Your task to perform on an android device: Clear the cart on costco. Search for razer thresher on costco, select the first entry, add it to the cart, then select checkout. Image 0: 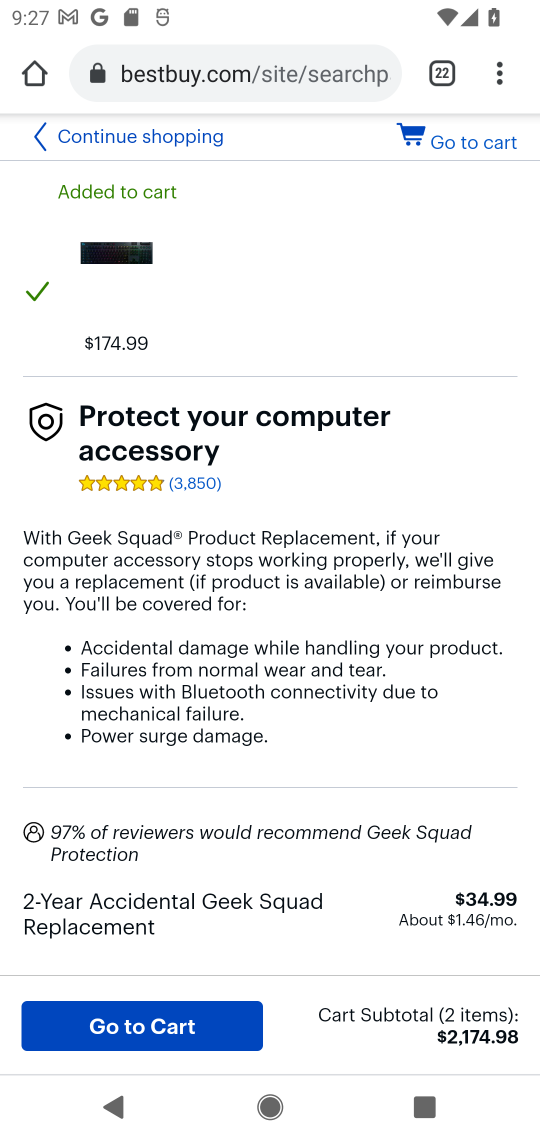
Step 0: press home button
Your task to perform on an android device: Clear the cart on costco. Search for razer thresher on costco, select the first entry, add it to the cart, then select checkout. Image 1: 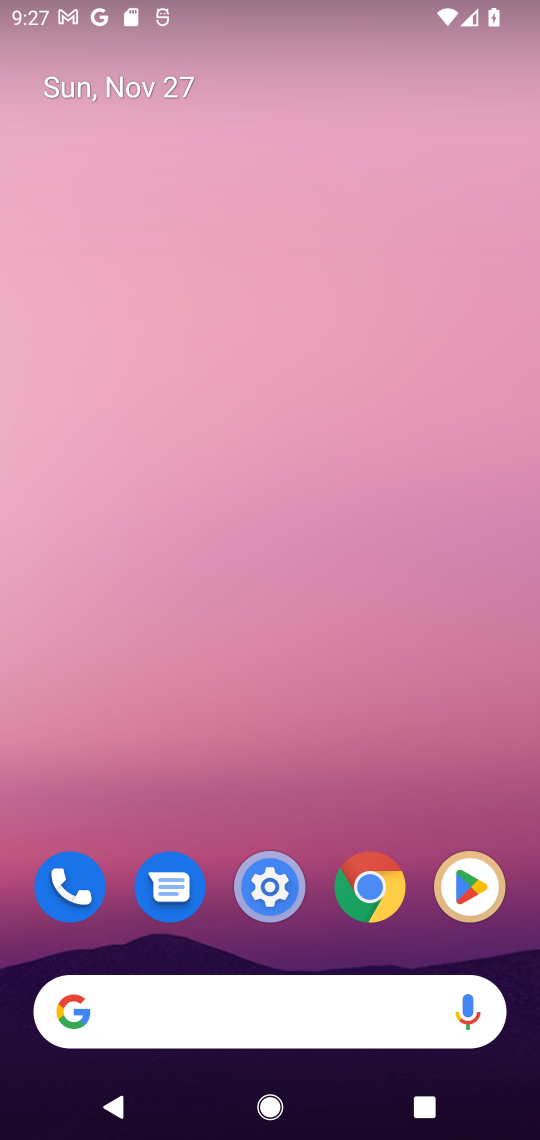
Step 1: click (235, 1042)
Your task to perform on an android device: Clear the cart on costco. Search for razer thresher on costco, select the first entry, add it to the cart, then select checkout. Image 2: 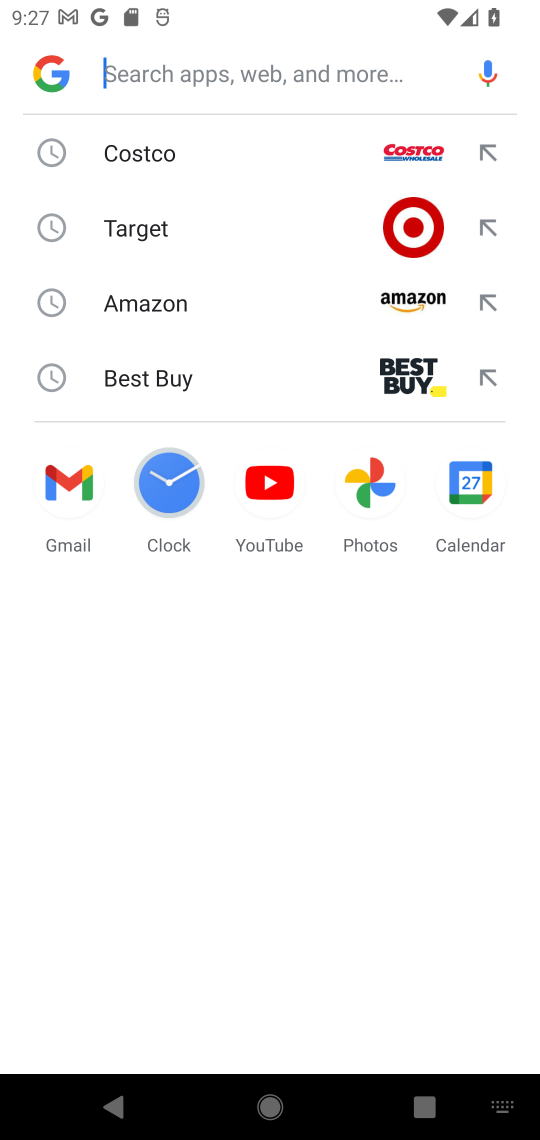
Step 2: click (250, 166)
Your task to perform on an android device: Clear the cart on costco. Search for razer thresher on costco, select the first entry, add it to the cart, then select checkout. Image 3: 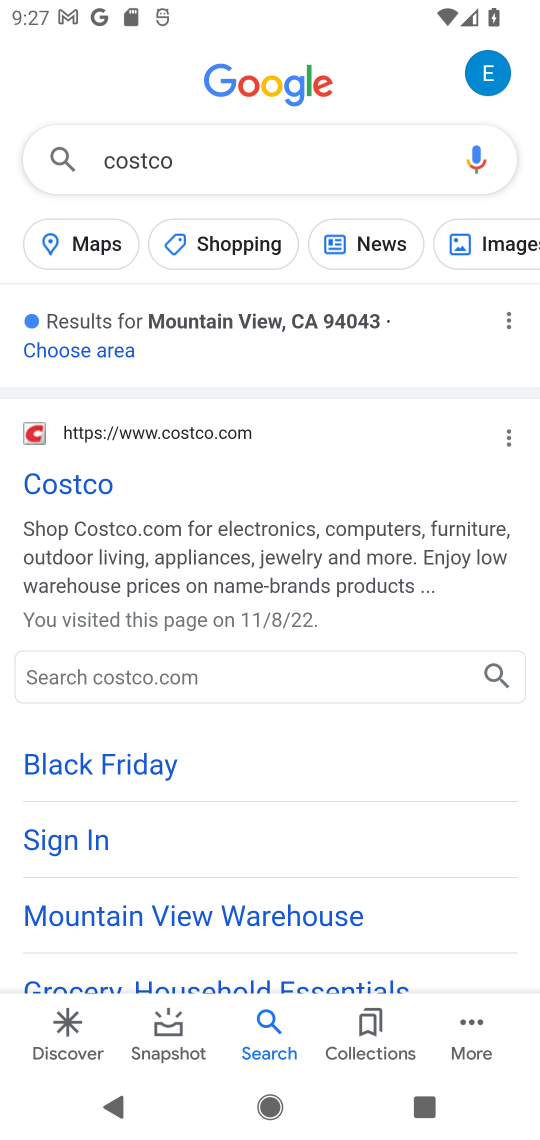
Step 3: click (64, 505)
Your task to perform on an android device: Clear the cart on costco. Search for razer thresher on costco, select the first entry, add it to the cart, then select checkout. Image 4: 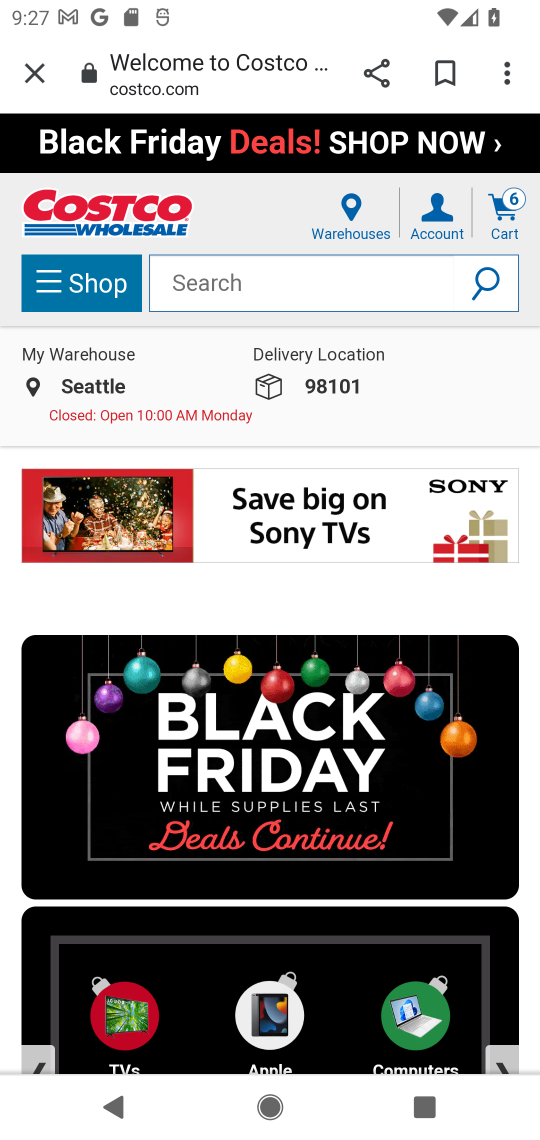
Step 4: click (197, 265)
Your task to perform on an android device: Clear the cart on costco. Search for razer thresher on costco, select the first entry, add it to the cart, then select checkout. Image 5: 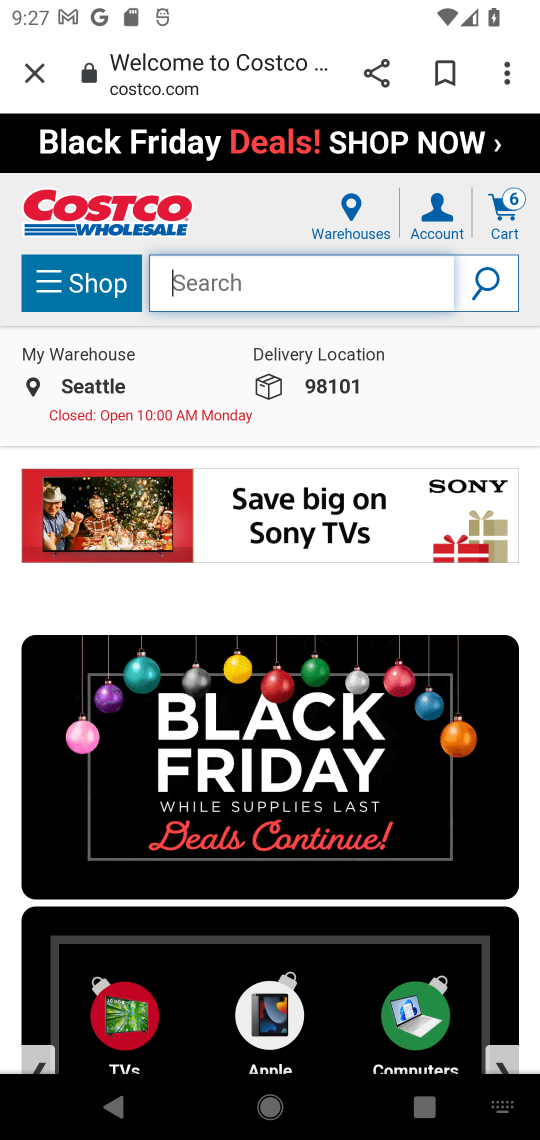
Step 5: type "razer thresher"
Your task to perform on an android device: Clear the cart on costco. Search for razer thresher on costco, select the first entry, add it to the cart, then select checkout. Image 6: 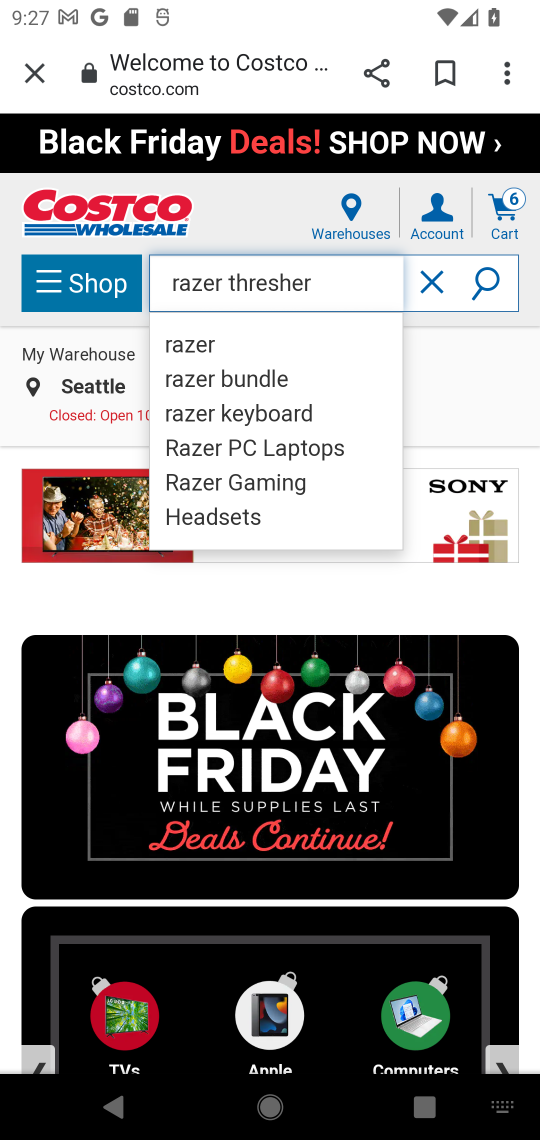
Step 6: click (486, 302)
Your task to perform on an android device: Clear the cart on costco. Search for razer thresher on costco, select the first entry, add it to the cart, then select checkout. Image 7: 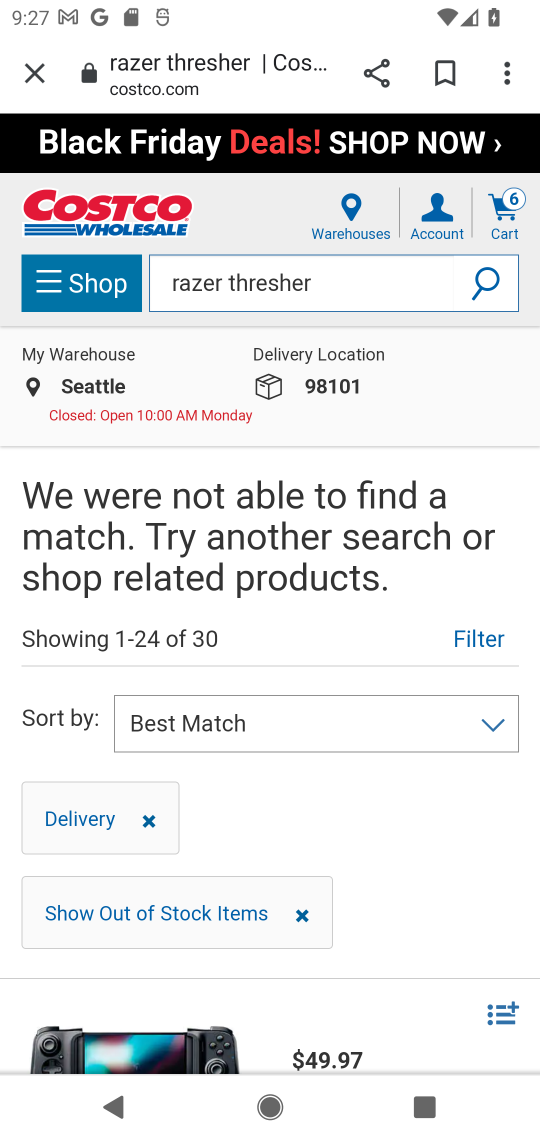
Step 7: drag from (406, 940) to (215, 411)
Your task to perform on an android device: Clear the cart on costco. Search for razer thresher on costco, select the first entry, add it to the cart, then select checkout. Image 8: 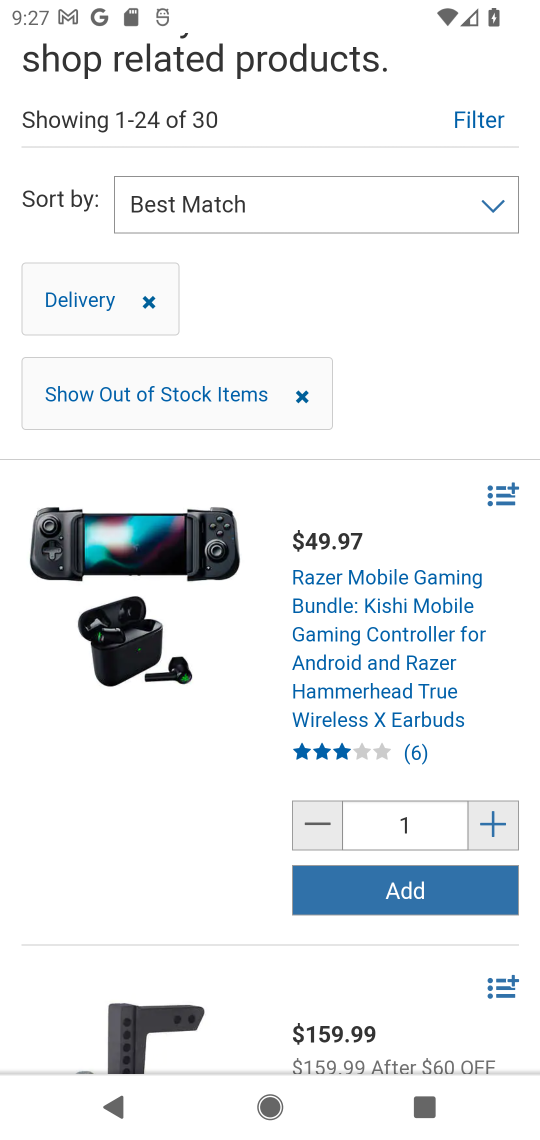
Step 8: click (405, 908)
Your task to perform on an android device: Clear the cart on costco. Search for razer thresher on costco, select the first entry, add it to the cart, then select checkout. Image 9: 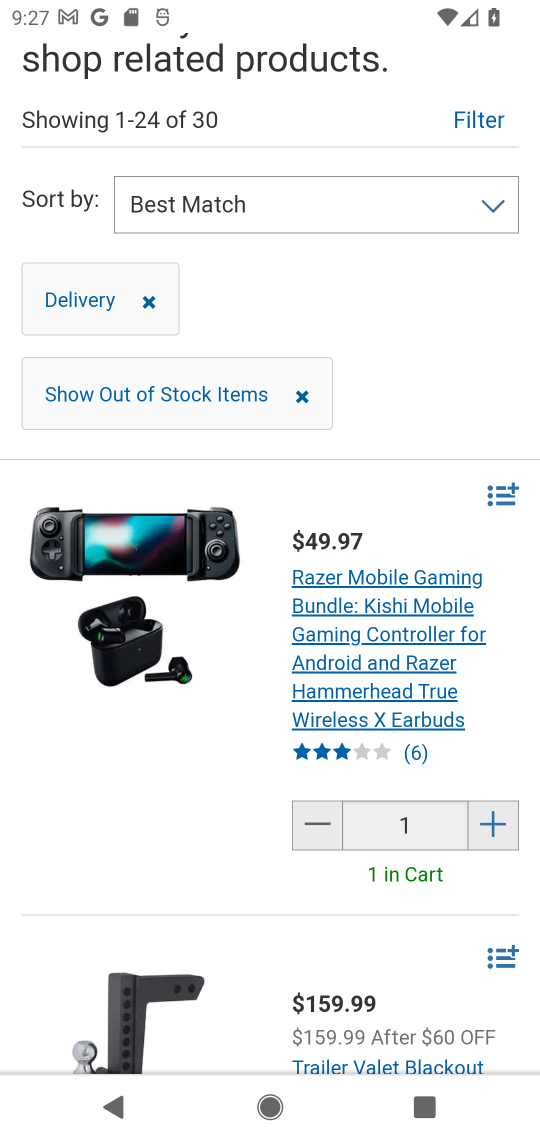
Step 9: task complete